Your task to perform on an android device: toggle improve location accuracy Image 0: 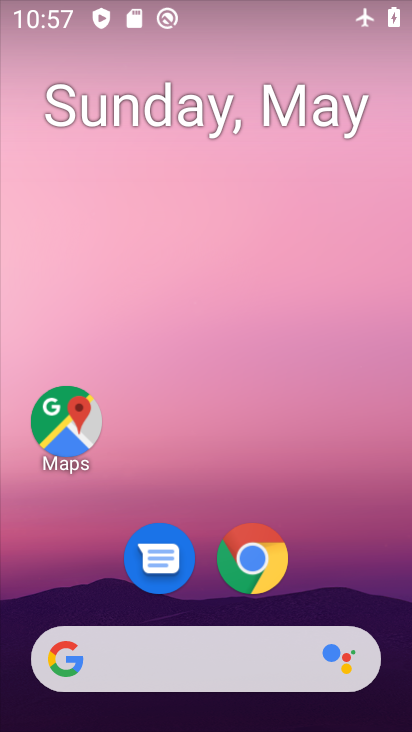
Step 0: drag from (337, 567) to (341, 136)
Your task to perform on an android device: toggle improve location accuracy Image 1: 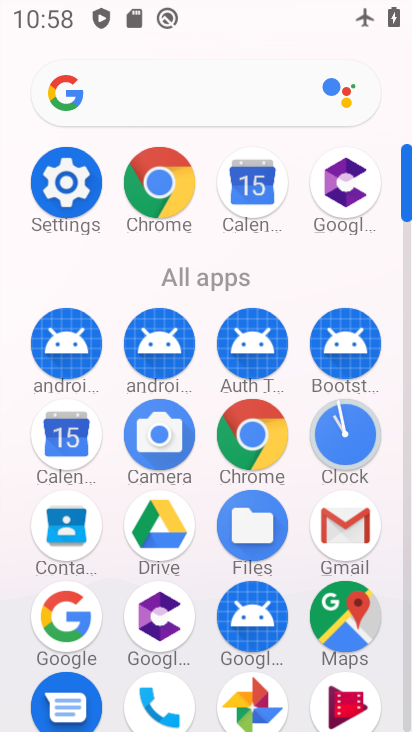
Step 1: click (70, 189)
Your task to perform on an android device: toggle improve location accuracy Image 2: 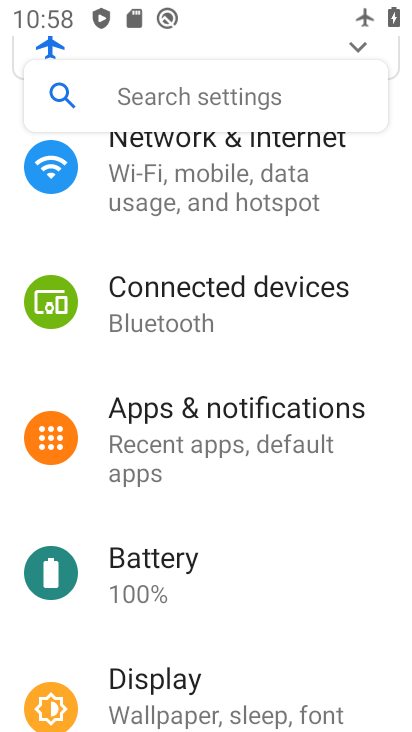
Step 2: drag from (327, 588) to (327, 477)
Your task to perform on an android device: toggle improve location accuracy Image 3: 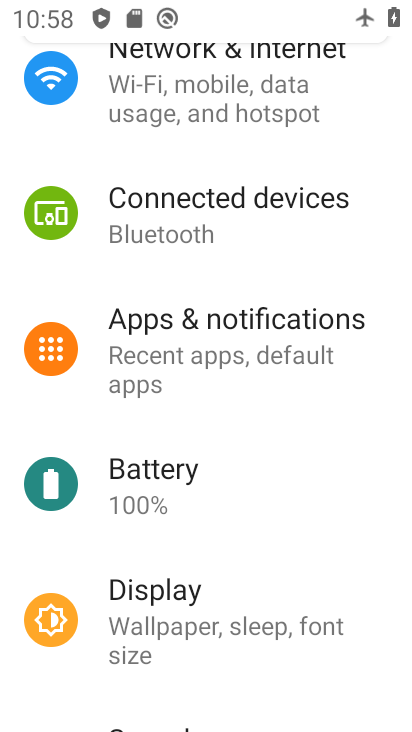
Step 3: drag from (347, 670) to (356, 512)
Your task to perform on an android device: toggle improve location accuracy Image 4: 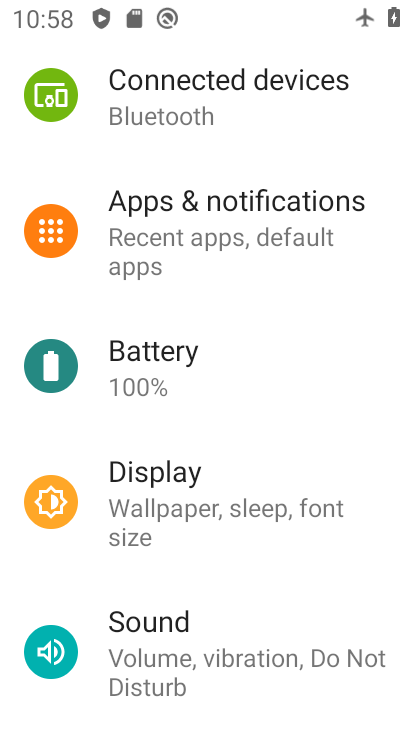
Step 4: drag from (330, 657) to (330, 461)
Your task to perform on an android device: toggle improve location accuracy Image 5: 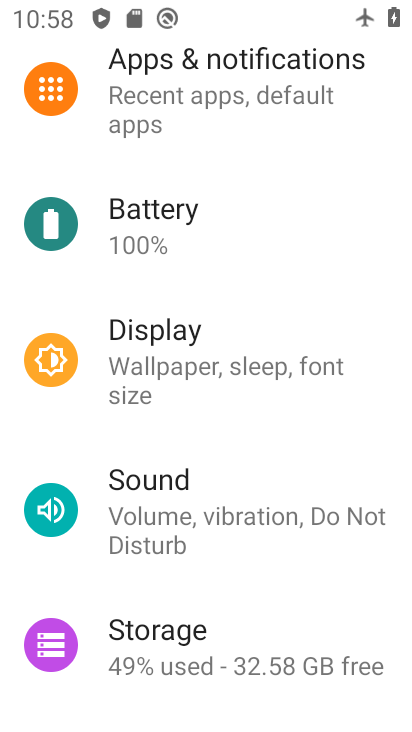
Step 5: drag from (324, 680) to (322, 454)
Your task to perform on an android device: toggle improve location accuracy Image 6: 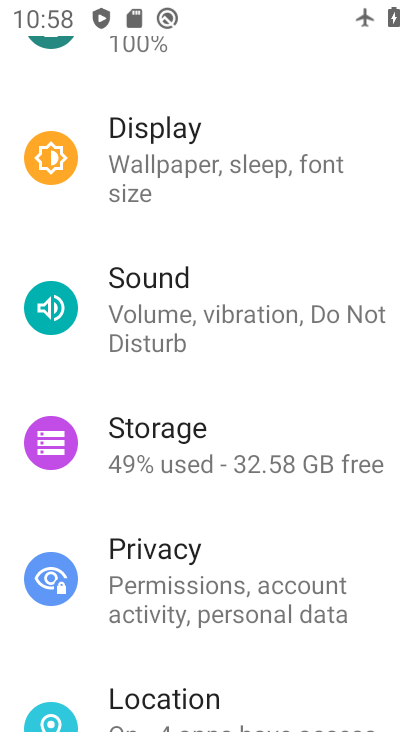
Step 6: drag from (323, 641) to (321, 523)
Your task to perform on an android device: toggle improve location accuracy Image 7: 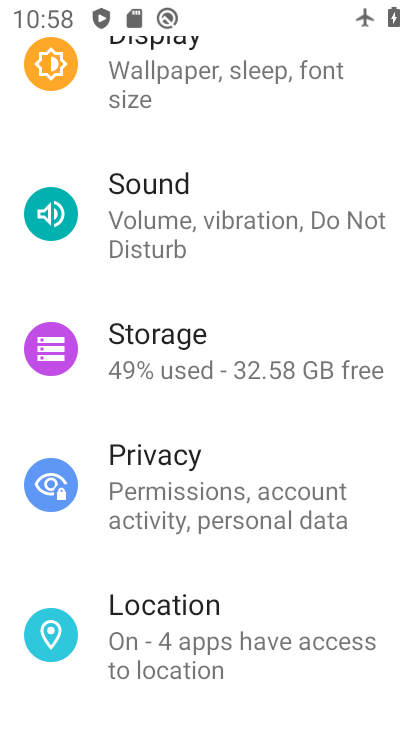
Step 7: drag from (323, 671) to (323, 492)
Your task to perform on an android device: toggle improve location accuracy Image 8: 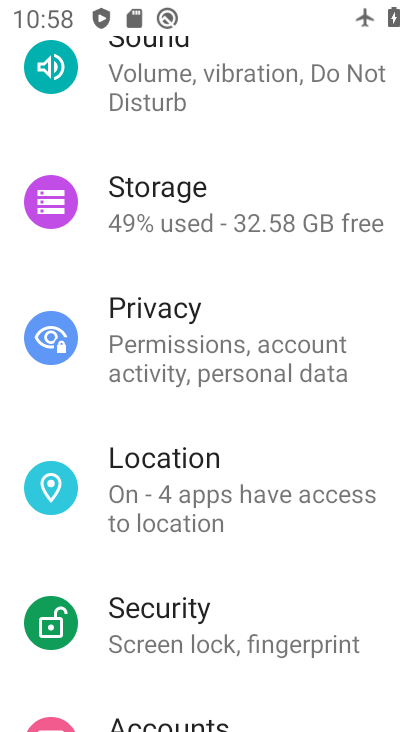
Step 8: click (207, 491)
Your task to perform on an android device: toggle improve location accuracy Image 9: 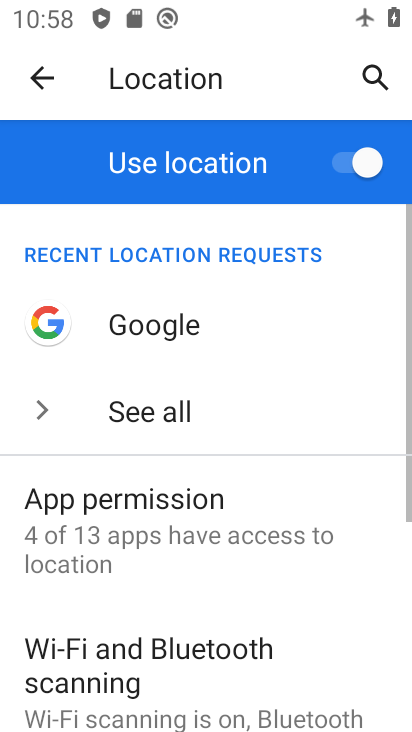
Step 9: drag from (321, 605) to (320, 481)
Your task to perform on an android device: toggle improve location accuracy Image 10: 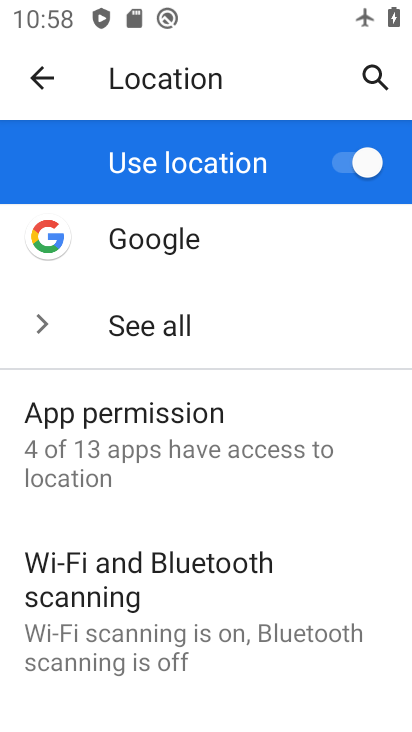
Step 10: drag from (303, 667) to (304, 416)
Your task to perform on an android device: toggle improve location accuracy Image 11: 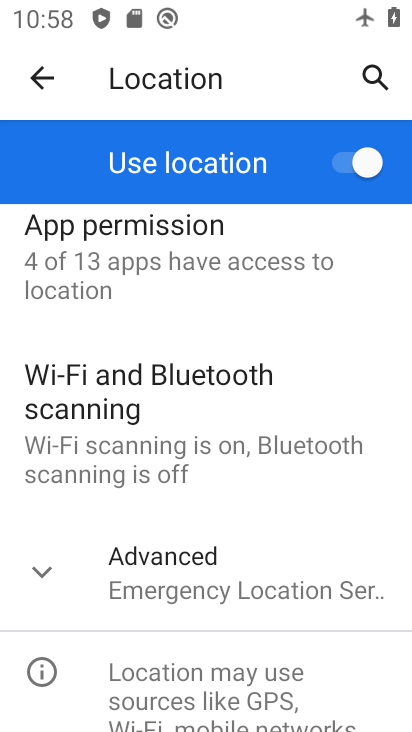
Step 11: click (257, 580)
Your task to perform on an android device: toggle improve location accuracy Image 12: 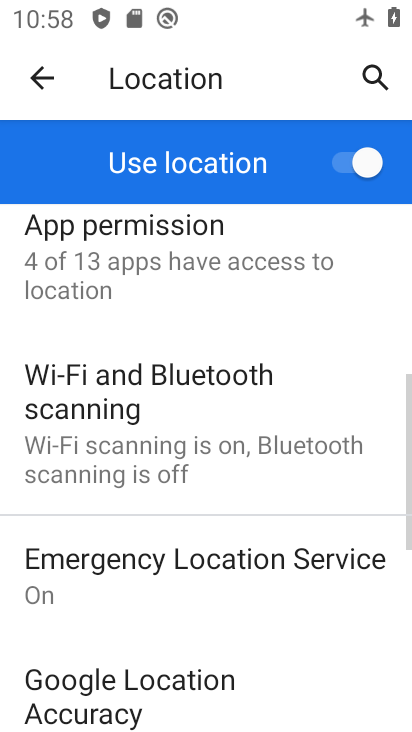
Step 12: drag from (299, 672) to (297, 490)
Your task to perform on an android device: toggle improve location accuracy Image 13: 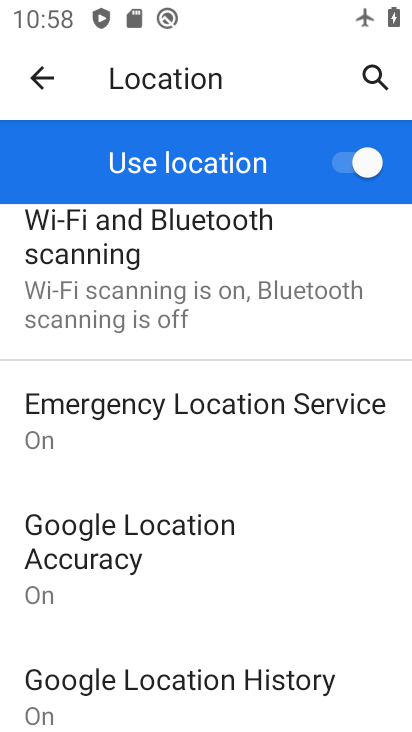
Step 13: click (143, 530)
Your task to perform on an android device: toggle improve location accuracy Image 14: 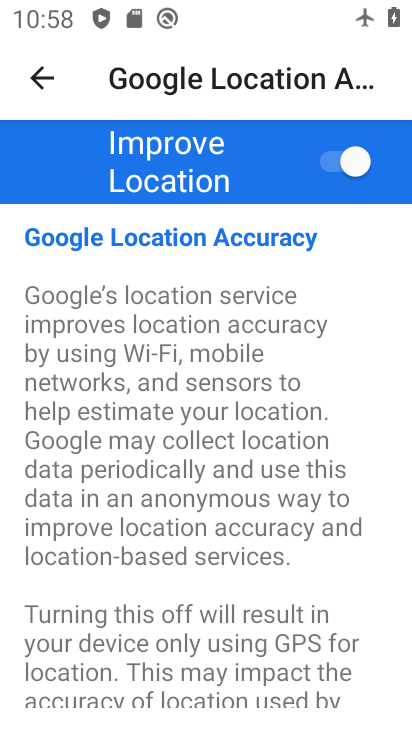
Step 14: click (339, 161)
Your task to perform on an android device: toggle improve location accuracy Image 15: 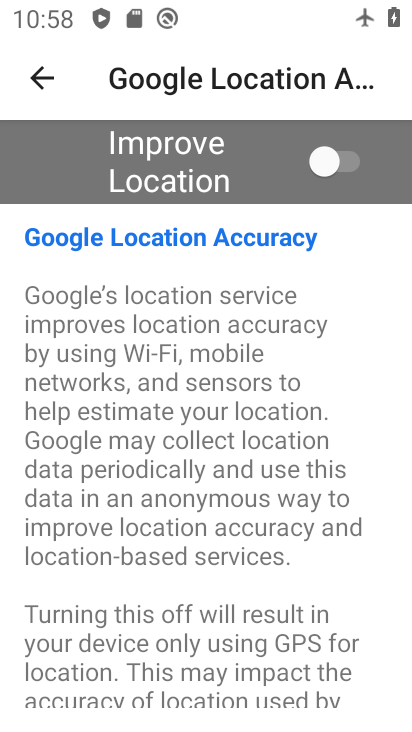
Step 15: task complete